Your task to perform on an android device: turn on sleep mode Image 0: 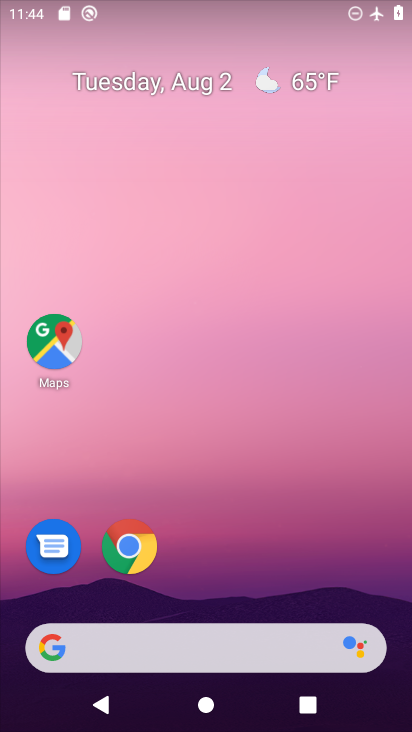
Step 0: drag from (223, 587) to (207, 140)
Your task to perform on an android device: turn on sleep mode Image 1: 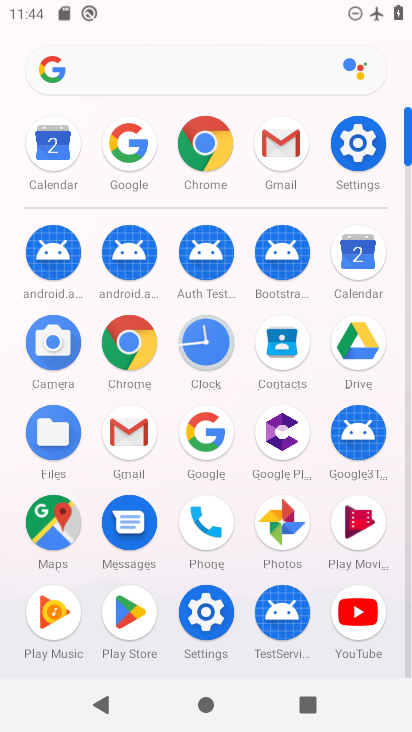
Step 1: click (352, 166)
Your task to perform on an android device: turn on sleep mode Image 2: 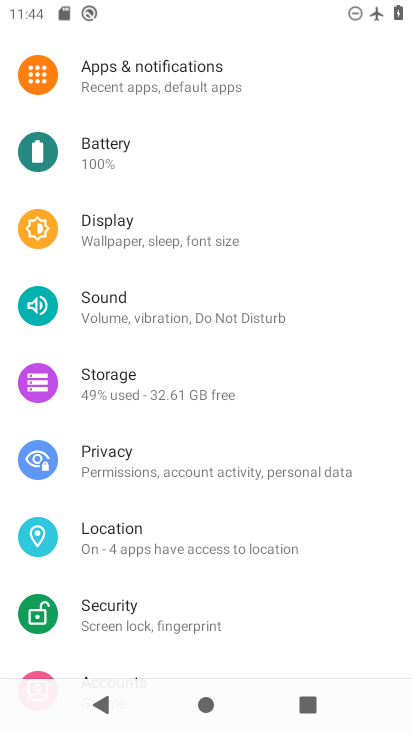
Step 2: drag from (178, 245) to (201, 538)
Your task to perform on an android device: turn on sleep mode Image 3: 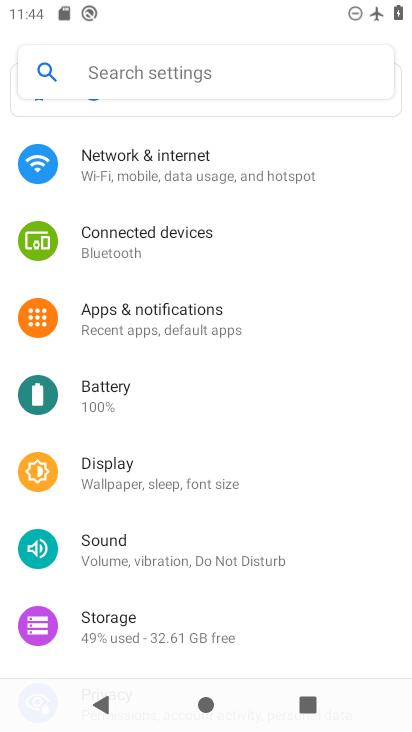
Step 3: drag from (202, 286) to (191, 545)
Your task to perform on an android device: turn on sleep mode Image 4: 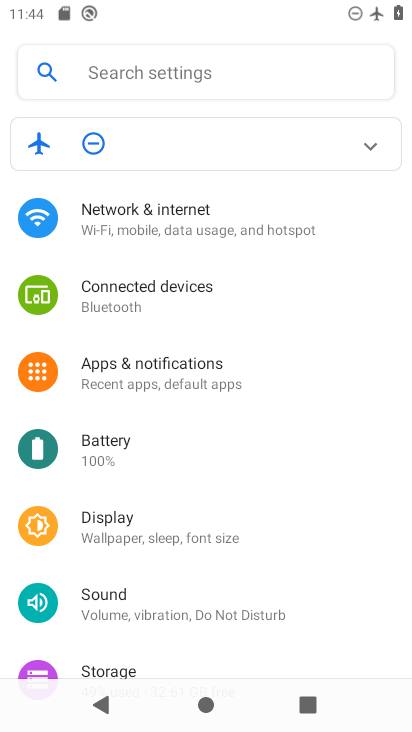
Step 4: click (152, 529)
Your task to perform on an android device: turn on sleep mode Image 5: 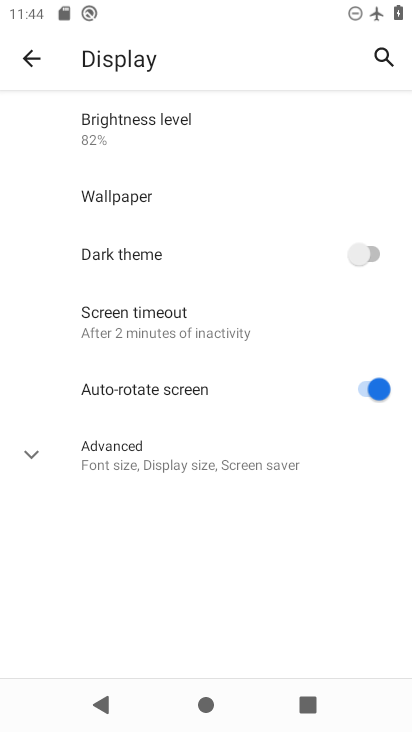
Step 5: click (179, 350)
Your task to perform on an android device: turn on sleep mode Image 6: 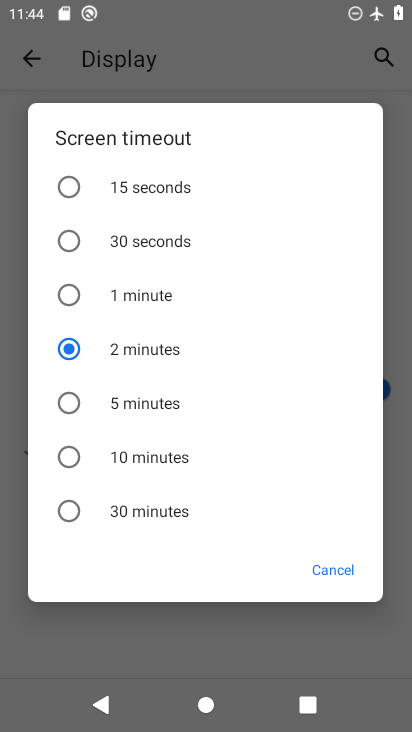
Step 6: click (160, 457)
Your task to perform on an android device: turn on sleep mode Image 7: 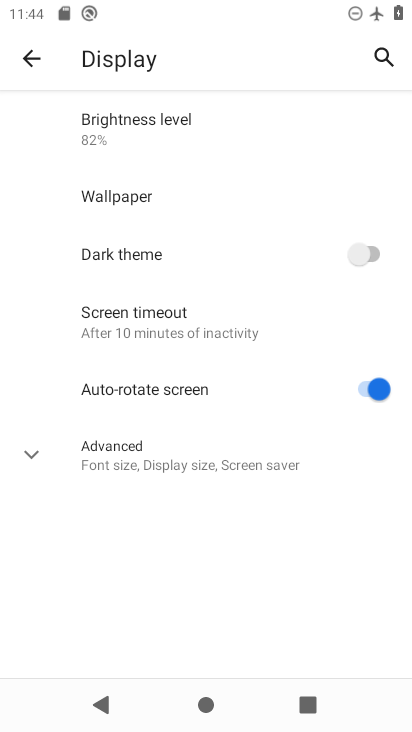
Step 7: task complete